Your task to perform on an android device: Open internet settings Image 0: 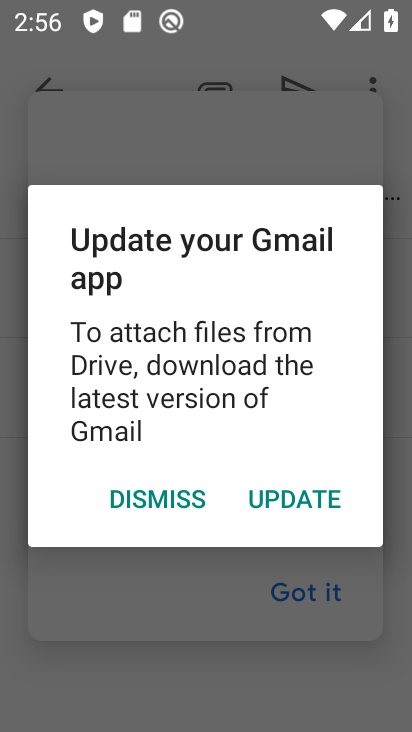
Step 0: press home button
Your task to perform on an android device: Open internet settings Image 1: 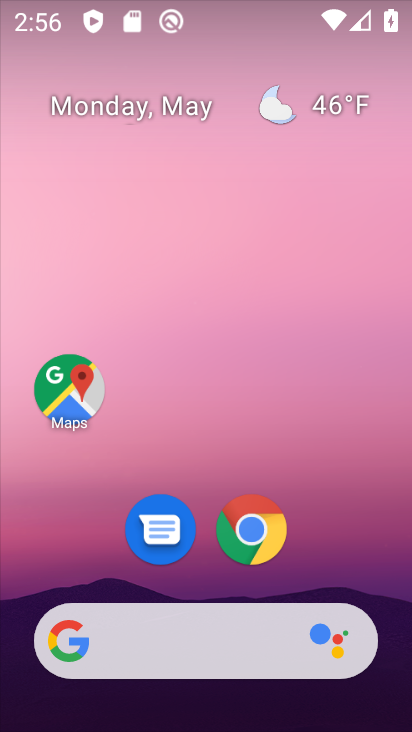
Step 1: drag from (400, 523) to (361, 130)
Your task to perform on an android device: Open internet settings Image 2: 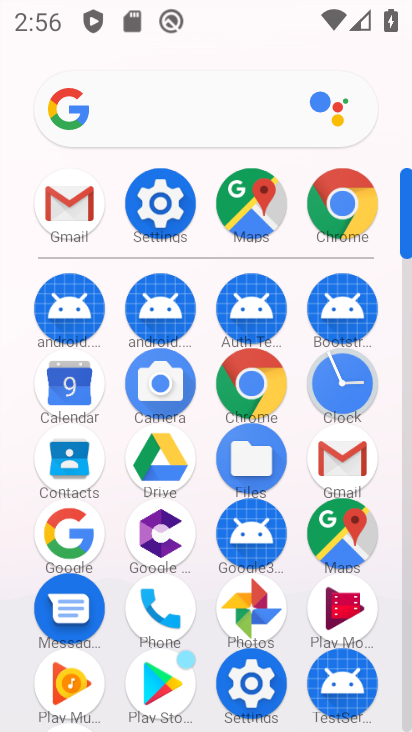
Step 2: click (133, 212)
Your task to perform on an android device: Open internet settings Image 3: 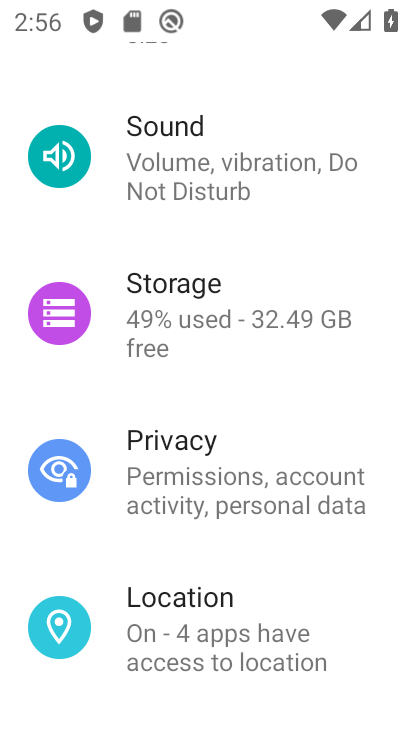
Step 3: drag from (233, 195) to (253, 483)
Your task to perform on an android device: Open internet settings Image 4: 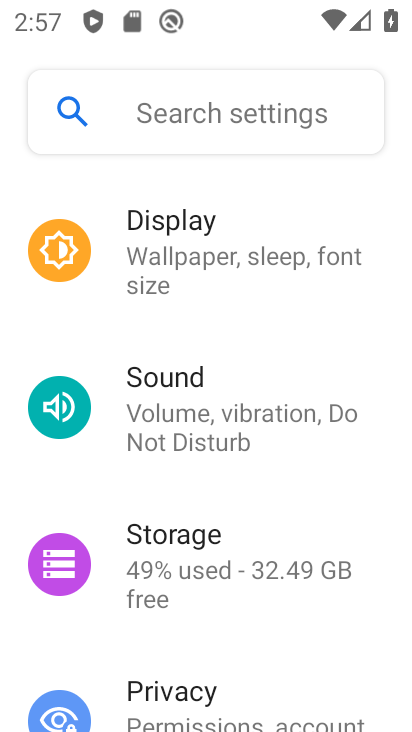
Step 4: drag from (321, 319) to (328, 564)
Your task to perform on an android device: Open internet settings Image 5: 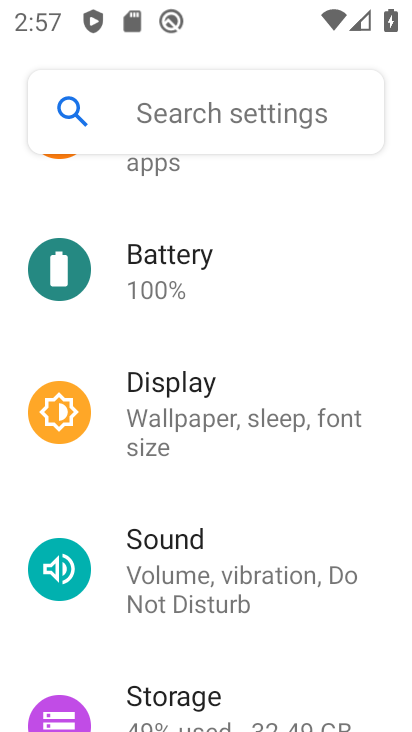
Step 5: drag from (276, 311) to (270, 610)
Your task to perform on an android device: Open internet settings Image 6: 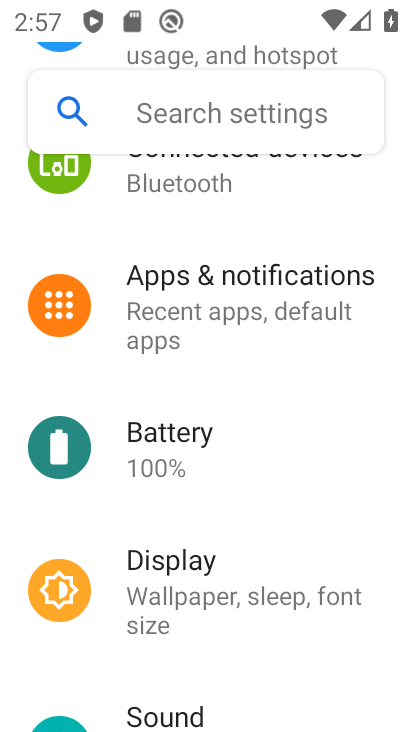
Step 6: drag from (228, 244) to (255, 665)
Your task to perform on an android device: Open internet settings Image 7: 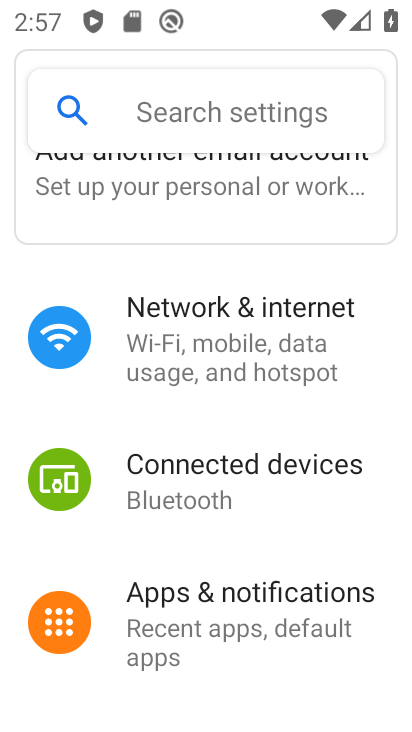
Step 7: click (240, 313)
Your task to perform on an android device: Open internet settings Image 8: 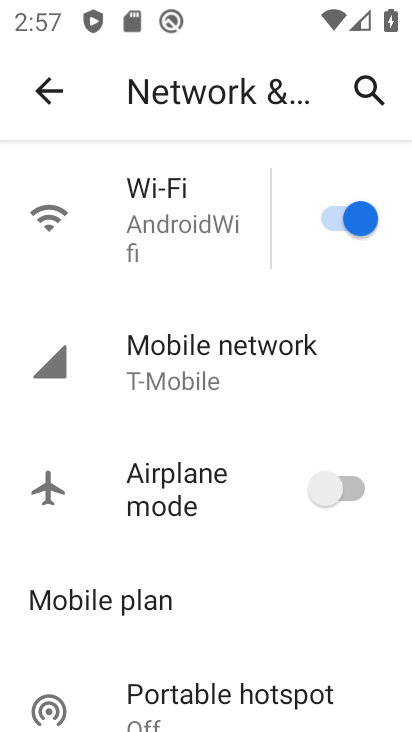
Step 8: click (217, 350)
Your task to perform on an android device: Open internet settings Image 9: 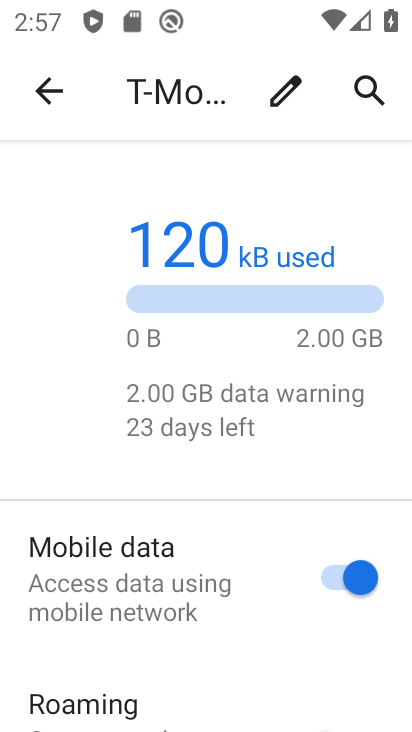
Step 9: task complete